Your task to perform on an android device: change text size in settings app Image 0: 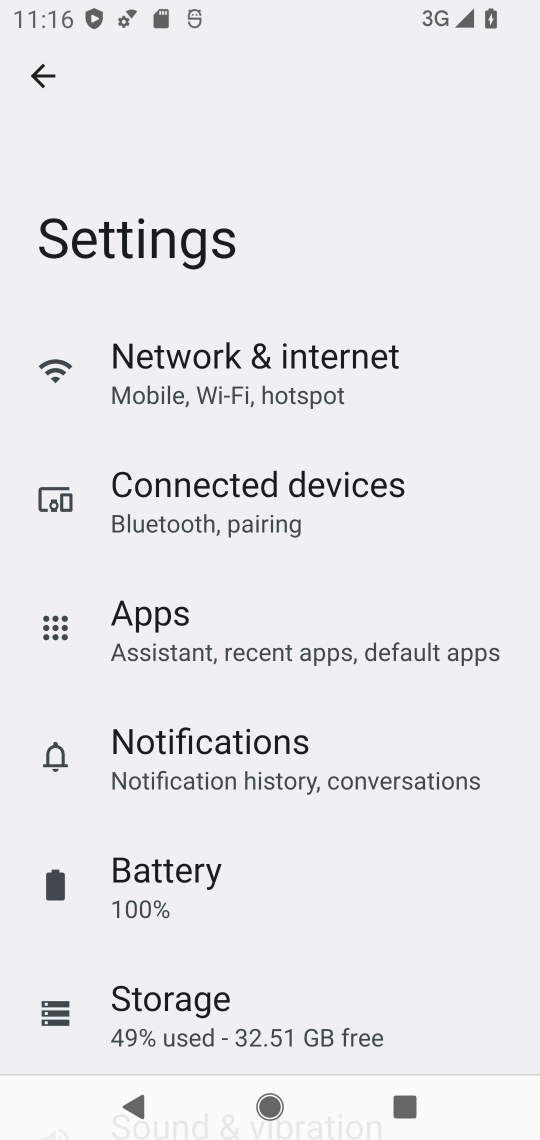
Step 0: drag from (346, 832) to (378, 190)
Your task to perform on an android device: change text size in settings app Image 1: 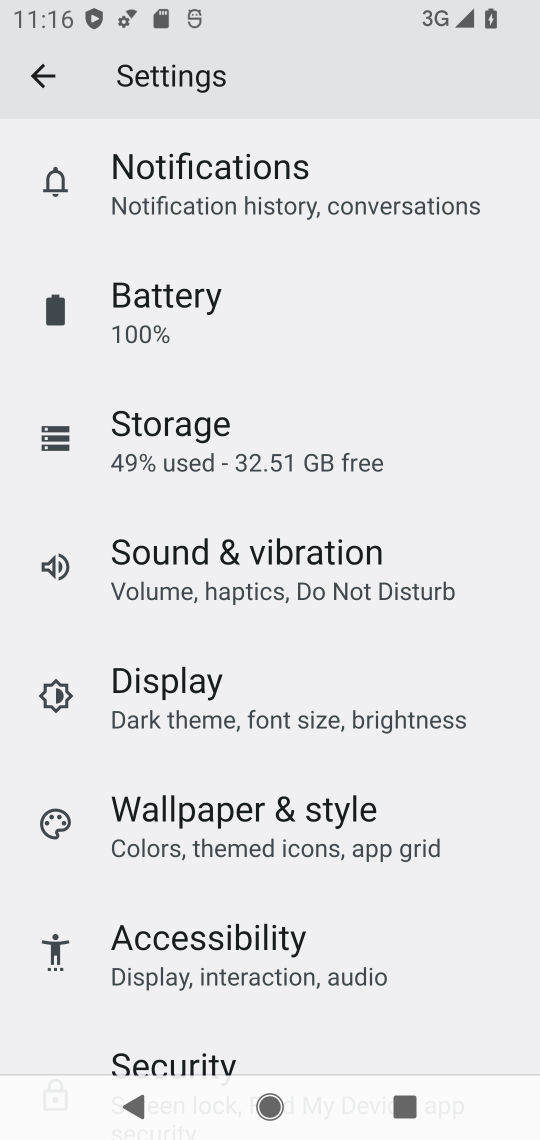
Step 1: click (273, 707)
Your task to perform on an android device: change text size in settings app Image 2: 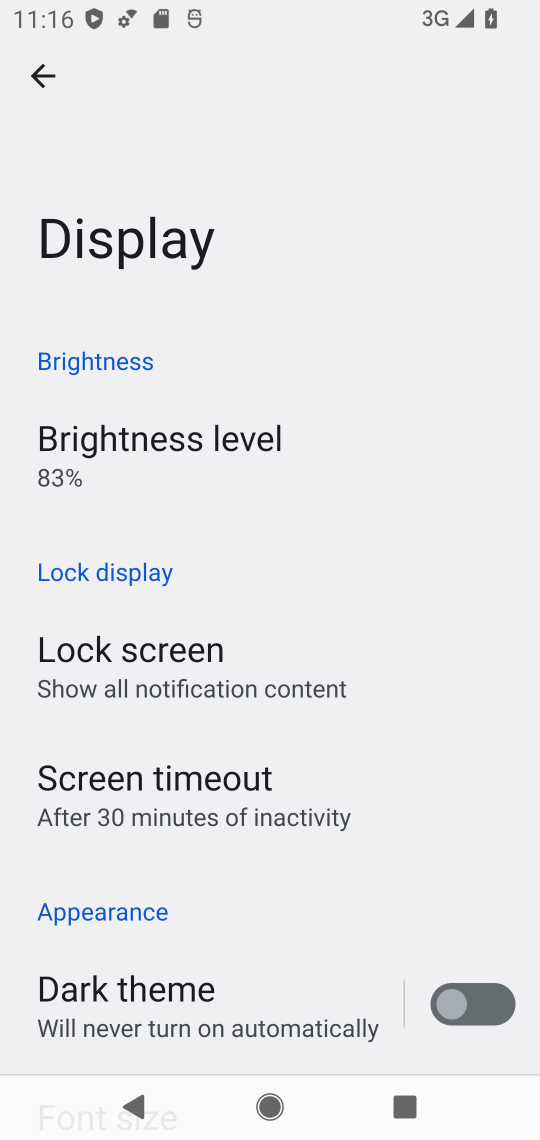
Step 2: drag from (292, 618) to (312, 72)
Your task to perform on an android device: change text size in settings app Image 3: 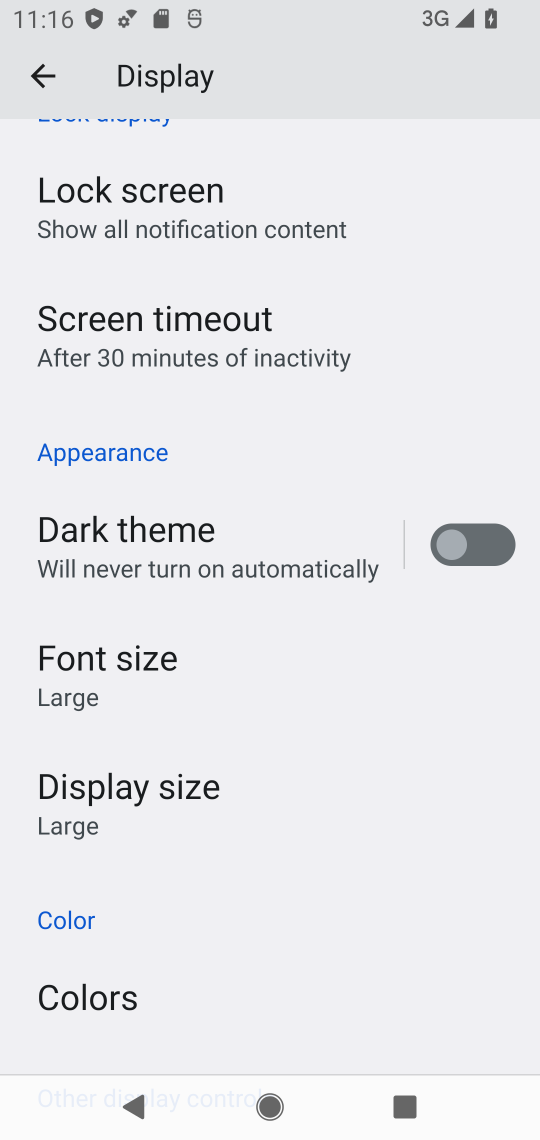
Step 3: click (182, 667)
Your task to perform on an android device: change text size in settings app Image 4: 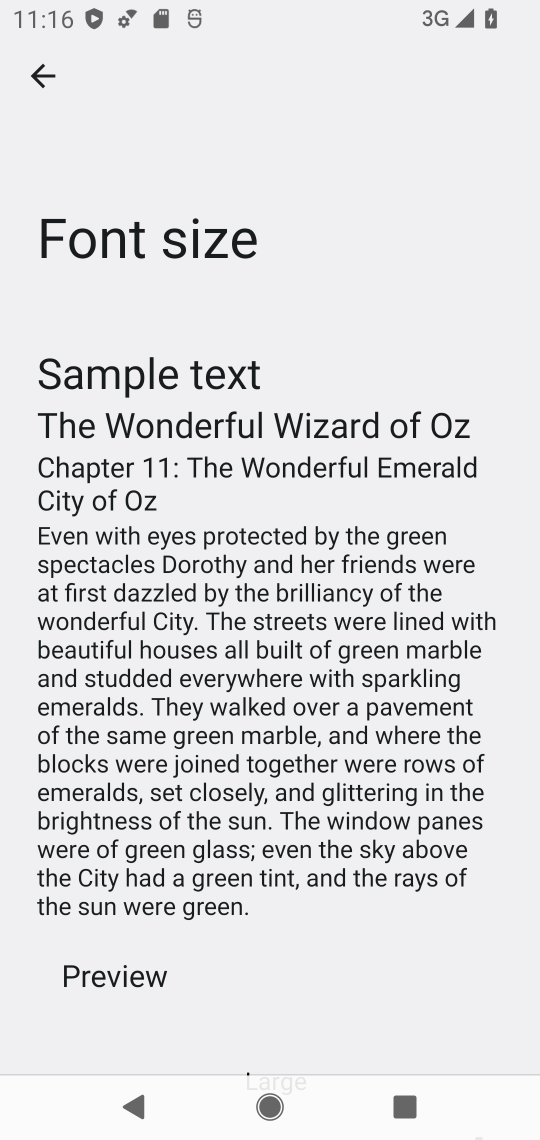
Step 4: drag from (276, 854) to (300, 249)
Your task to perform on an android device: change text size in settings app Image 5: 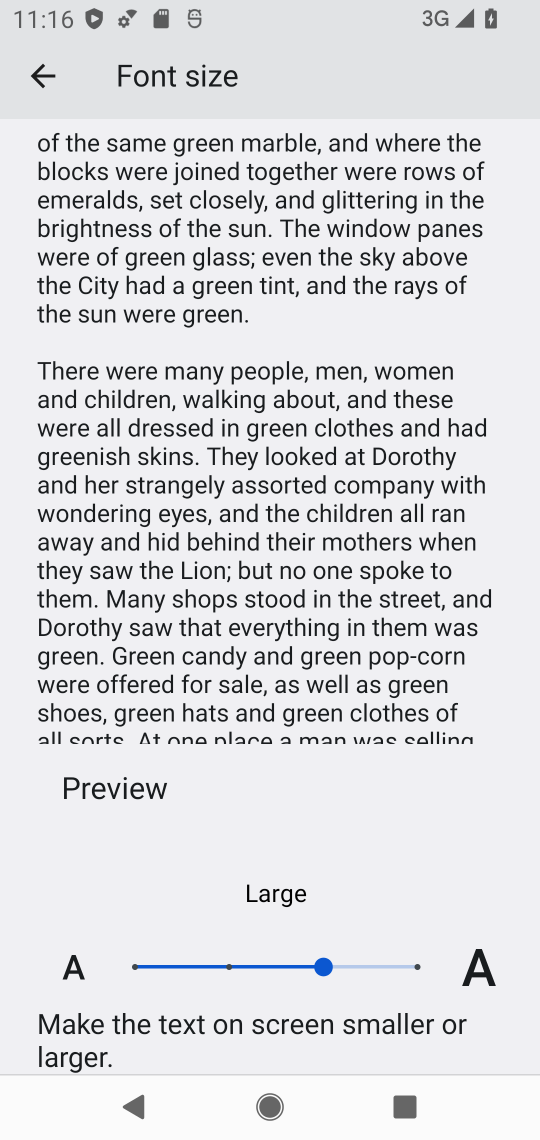
Step 5: click (235, 966)
Your task to perform on an android device: change text size in settings app Image 6: 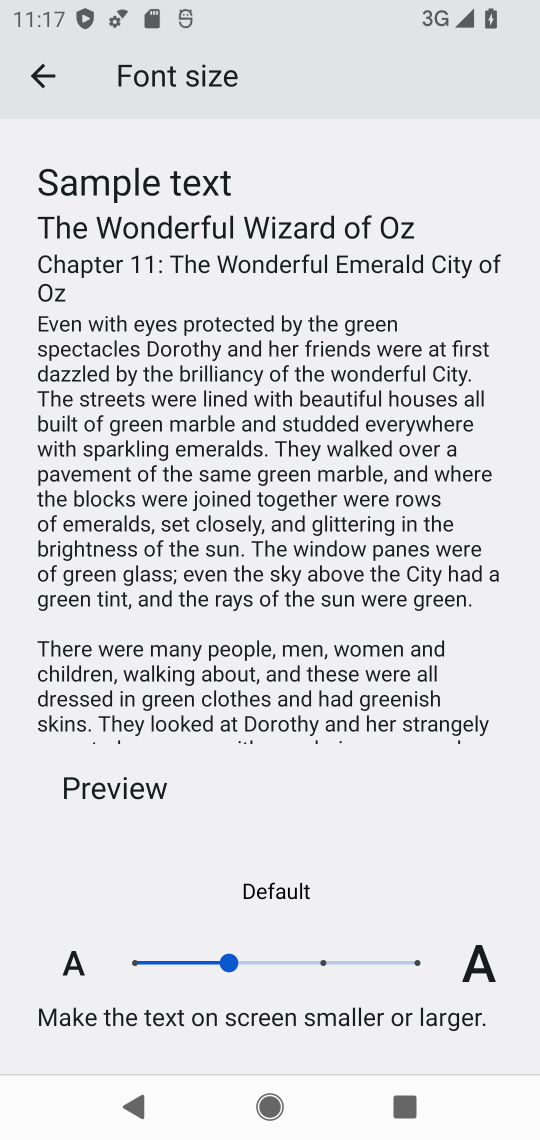
Step 6: task complete